Your task to perform on an android device: stop showing notifications on the lock screen Image 0: 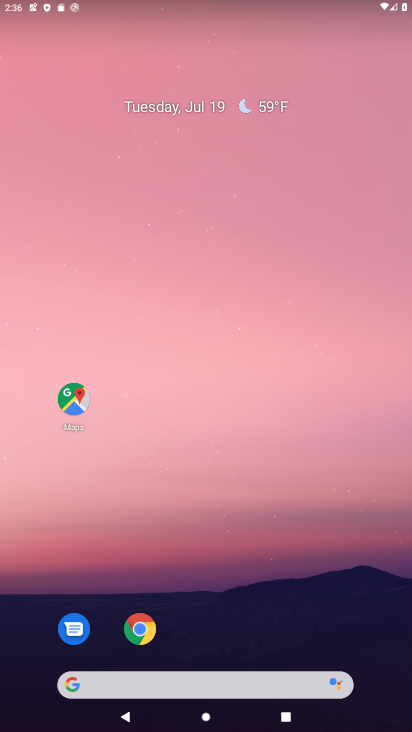
Step 0: task impossible